Your task to perform on an android device: Open eBay Image 0: 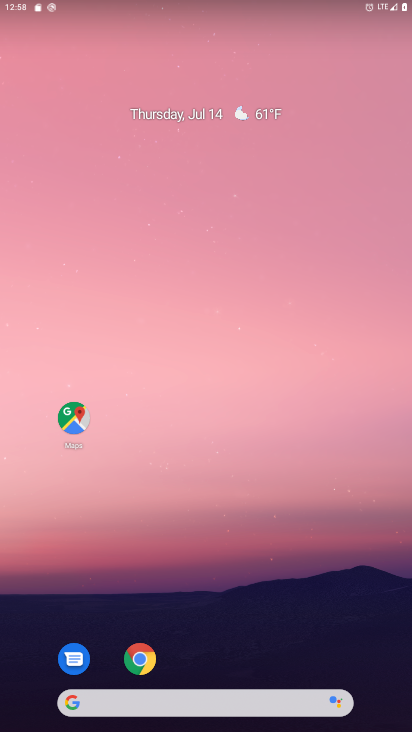
Step 0: press home button
Your task to perform on an android device: Open eBay Image 1: 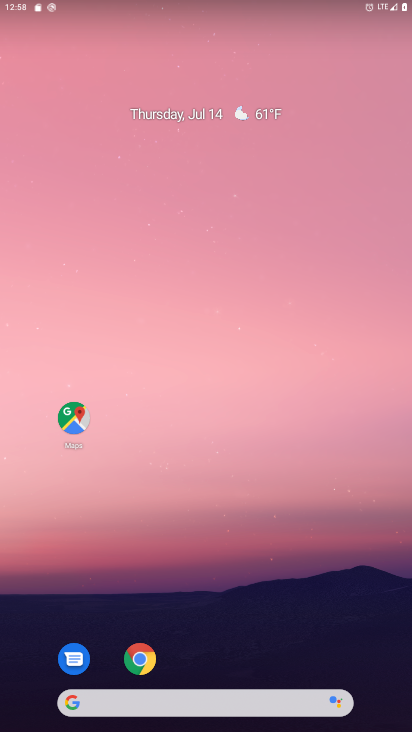
Step 1: press home button
Your task to perform on an android device: Open eBay Image 2: 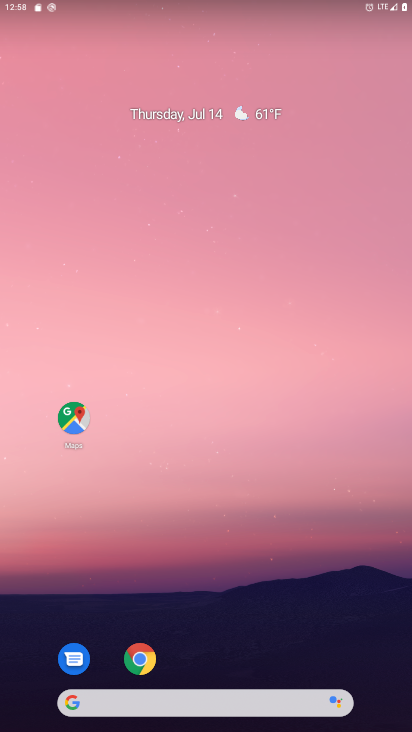
Step 2: click (140, 654)
Your task to perform on an android device: Open eBay Image 3: 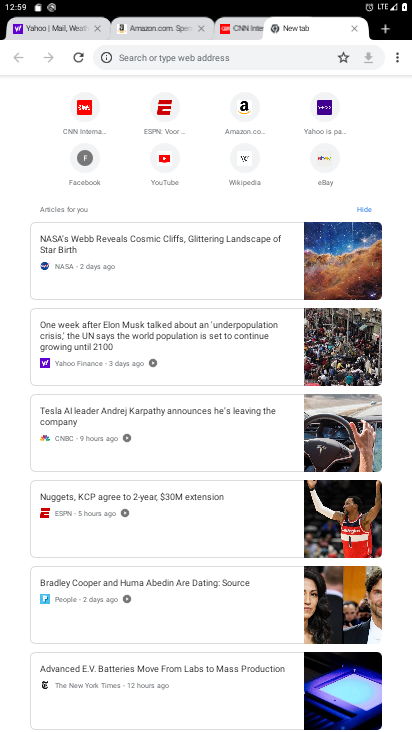
Step 3: click (326, 156)
Your task to perform on an android device: Open eBay Image 4: 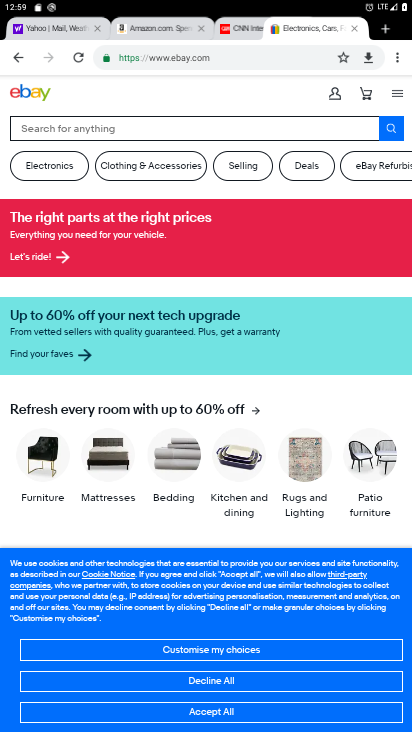
Step 4: click (232, 711)
Your task to perform on an android device: Open eBay Image 5: 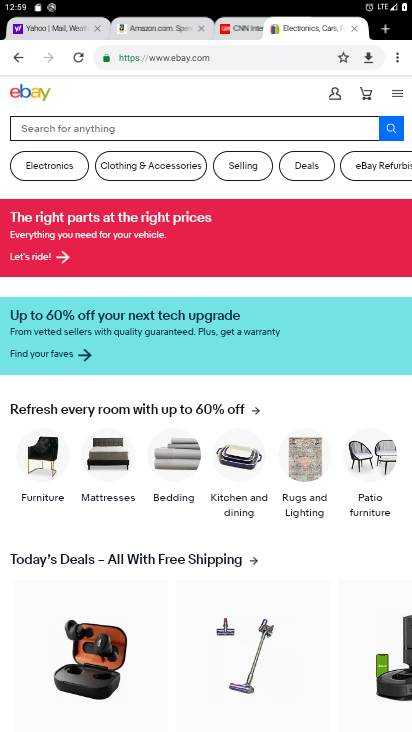
Step 5: task complete